Your task to perform on an android device: allow cookies in the chrome app Image 0: 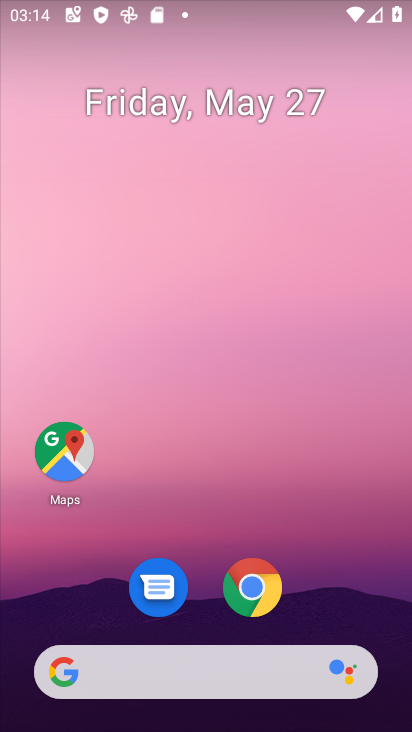
Step 0: click (242, 584)
Your task to perform on an android device: allow cookies in the chrome app Image 1: 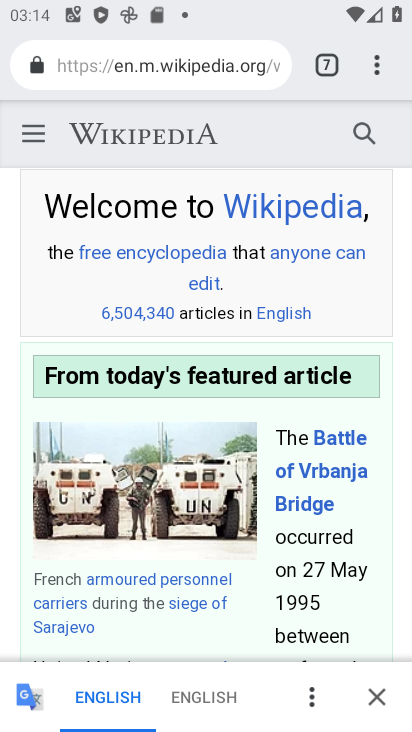
Step 1: drag from (376, 70) to (166, 631)
Your task to perform on an android device: allow cookies in the chrome app Image 2: 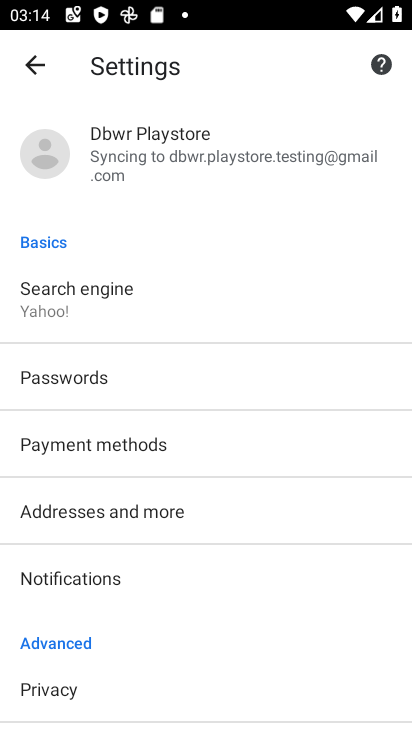
Step 2: drag from (240, 661) to (253, 423)
Your task to perform on an android device: allow cookies in the chrome app Image 3: 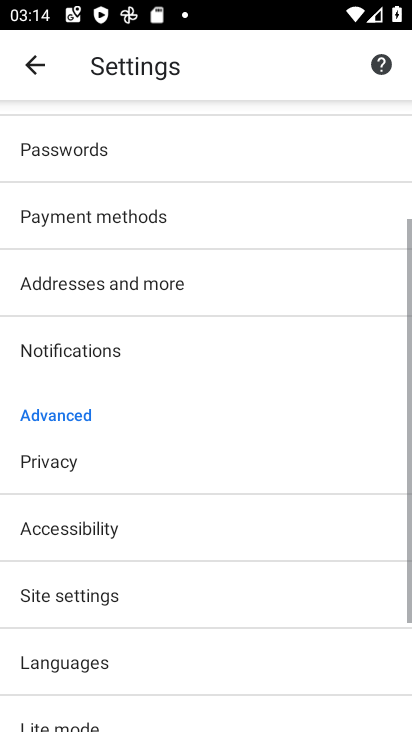
Step 3: click (137, 597)
Your task to perform on an android device: allow cookies in the chrome app Image 4: 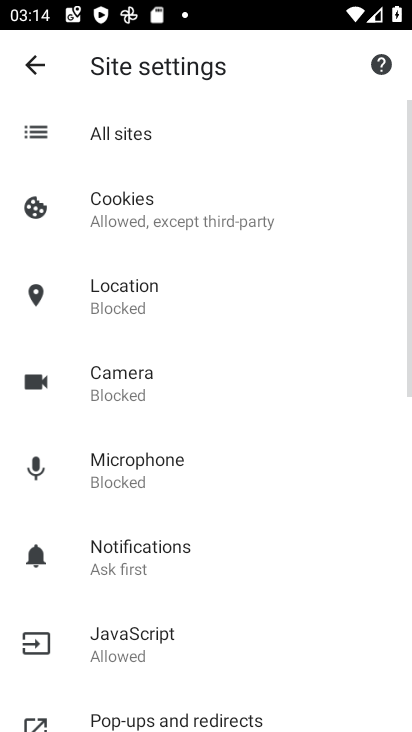
Step 4: click (146, 222)
Your task to perform on an android device: allow cookies in the chrome app Image 5: 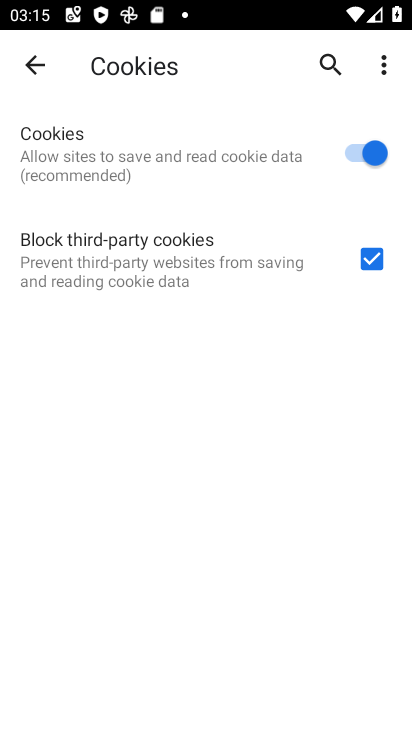
Step 5: task complete